Your task to perform on an android device: What's the news in India? Image 0: 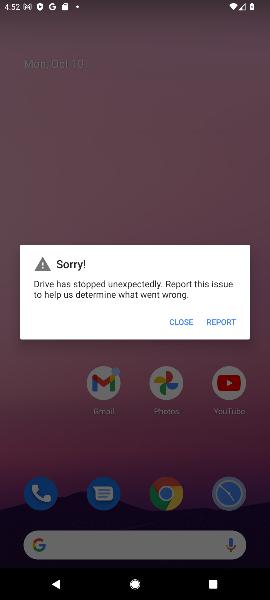
Step 0: click (174, 336)
Your task to perform on an android device: What's the news in India? Image 1: 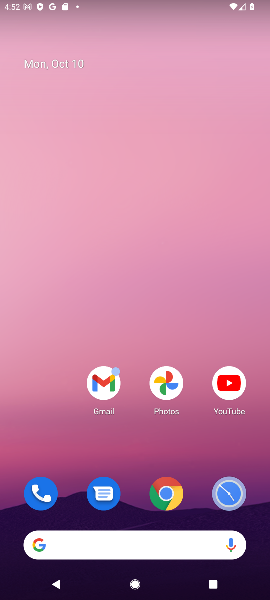
Step 1: press home button
Your task to perform on an android device: What's the news in India? Image 2: 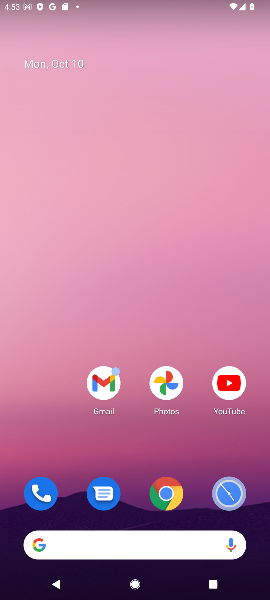
Step 2: click (136, 550)
Your task to perform on an android device: What's the news in India? Image 3: 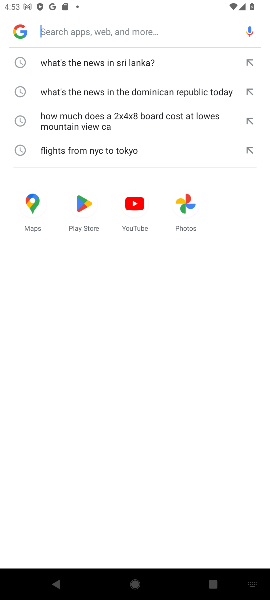
Step 3: type "What's the news in India?"
Your task to perform on an android device: What's the news in India? Image 4: 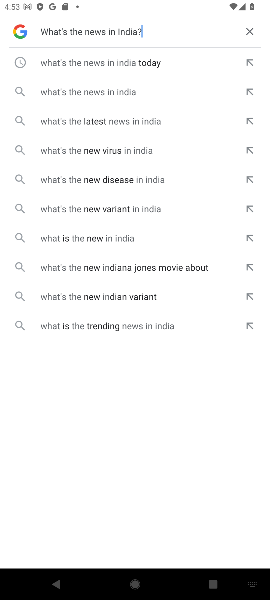
Step 4: click (160, 56)
Your task to perform on an android device: What's the news in India? Image 5: 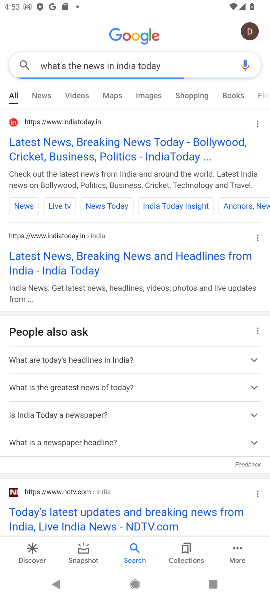
Step 5: task complete